Your task to perform on an android device: Clear the shopping cart on walmart. Search for "usb-a to usb-b" on walmart, select the first entry, and add it to the cart. Image 0: 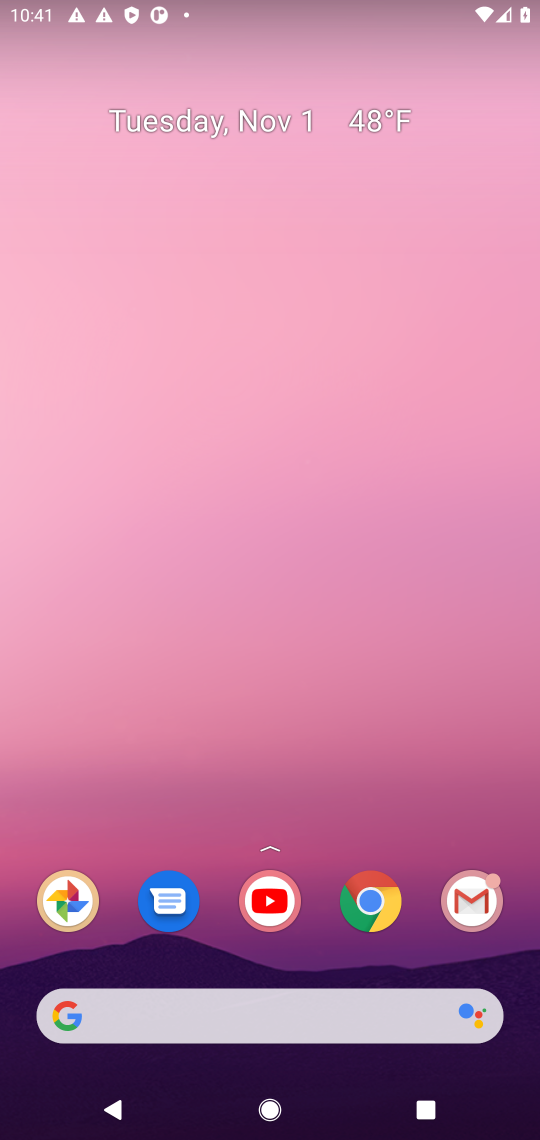
Step 0: drag from (325, 959) to (310, 196)
Your task to perform on an android device: Clear the shopping cart on walmart. Search for "usb-a to usb-b" on walmart, select the first entry, and add it to the cart. Image 1: 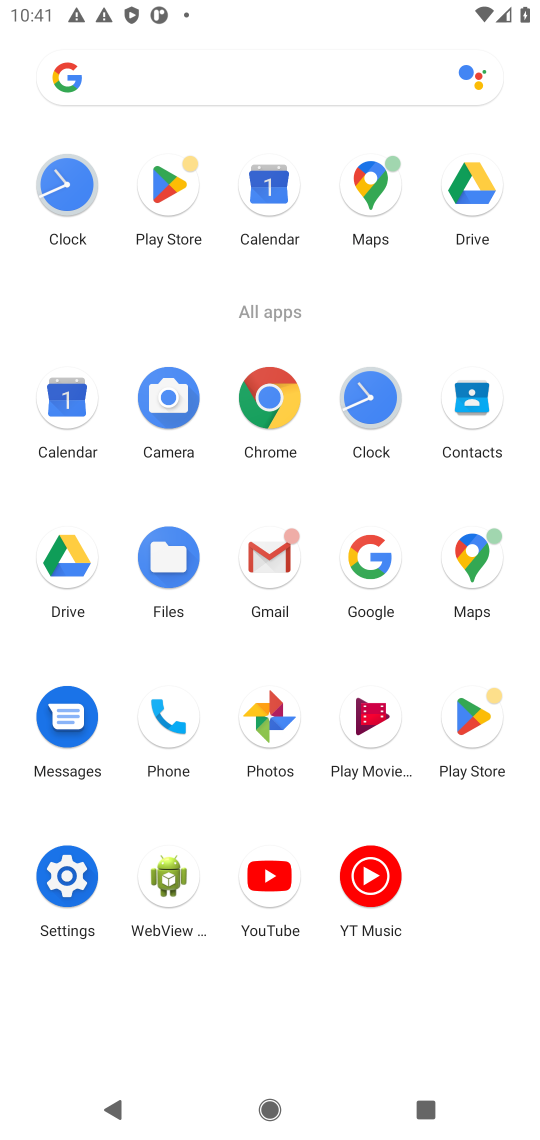
Step 1: click (273, 404)
Your task to perform on an android device: Clear the shopping cart on walmart. Search for "usb-a to usb-b" on walmart, select the first entry, and add it to the cart. Image 2: 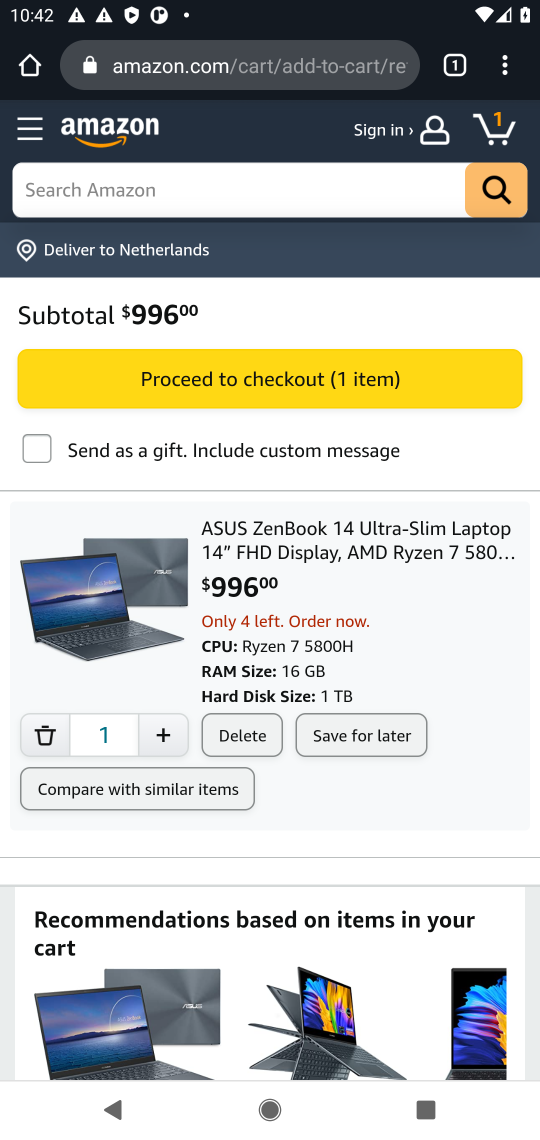
Step 2: click (312, 75)
Your task to perform on an android device: Clear the shopping cart on walmart. Search for "usb-a to usb-b" on walmart, select the first entry, and add it to the cart. Image 3: 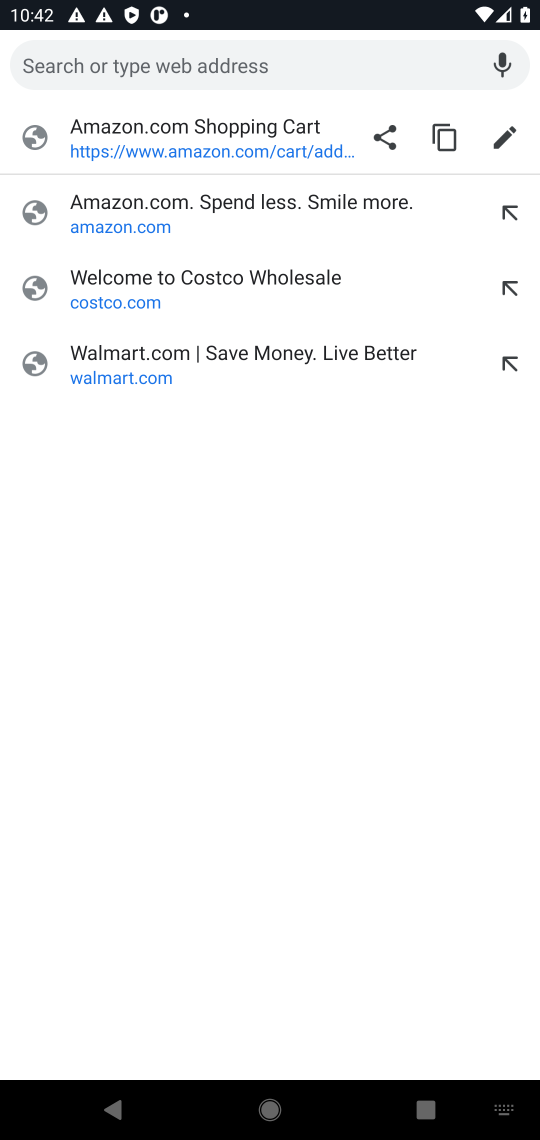
Step 3: type "walmart.com"
Your task to perform on an android device: Clear the shopping cart on walmart. Search for "usb-a to usb-b" on walmart, select the first entry, and add it to the cart. Image 4: 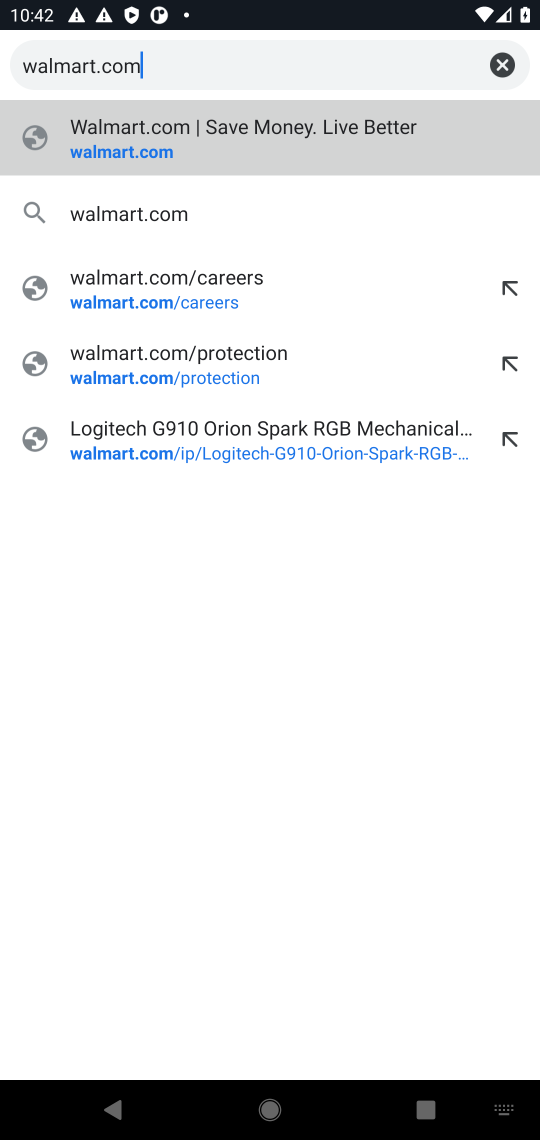
Step 4: press enter
Your task to perform on an android device: Clear the shopping cart on walmart. Search for "usb-a to usb-b" on walmart, select the first entry, and add it to the cart. Image 5: 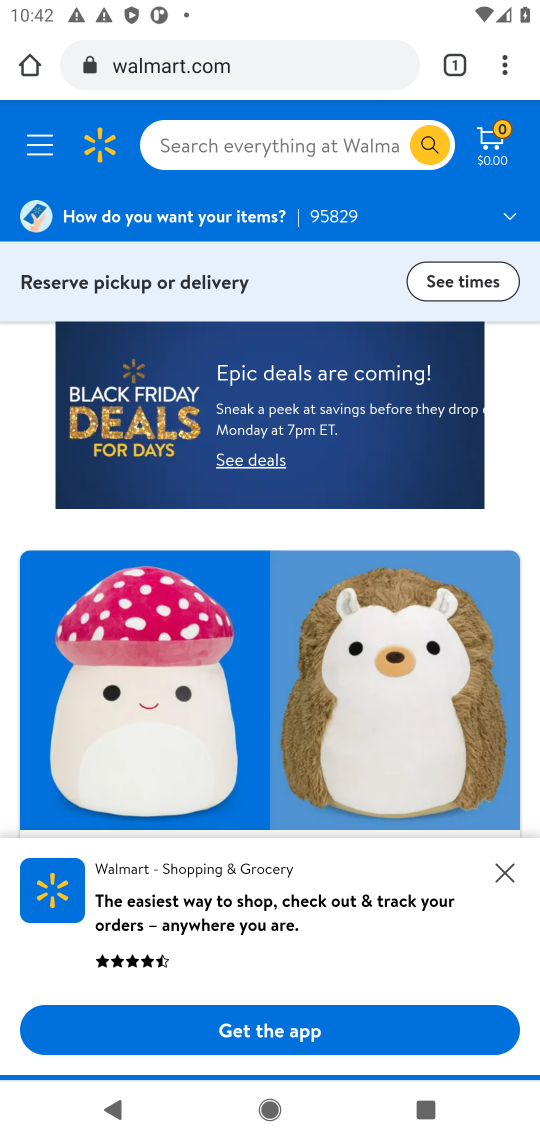
Step 5: click (485, 135)
Your task to perform on an android device: Clear the shopping cart on walmart. Search for "usb-a to usb-b" on walmart, select the first entry, and add it to the cart. Image 6: 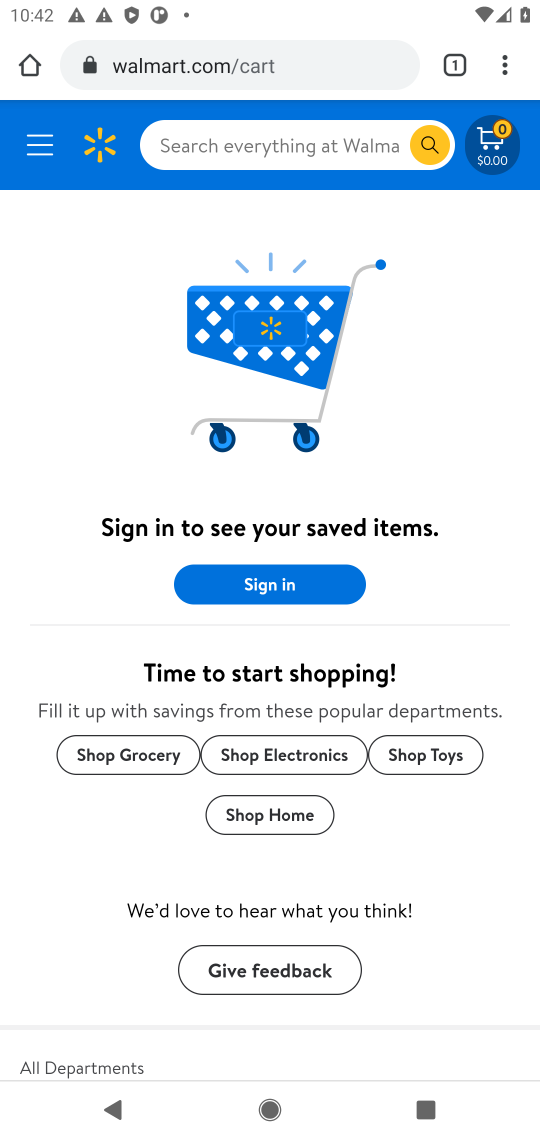
Step 6: click (336, 143)
Your task to perform on an android device: Clear the shopping cart on walmart. Search for "usb-a to usb-b" on walmart, select the first entry, and add it to the cart. Image 7: 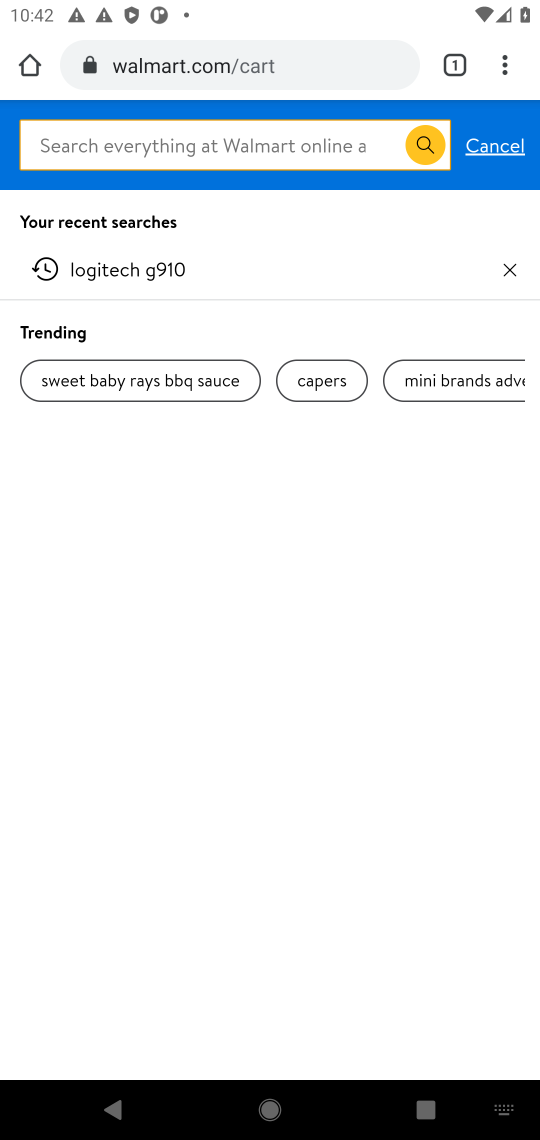
Step 7: type "usb-a to usb-b"
Your task to perform on an android device: Clear the shopping cart on walmart. Search for "usb-a to usb-b" on walmart, select the first entry, and add it to the cart. Image 8: 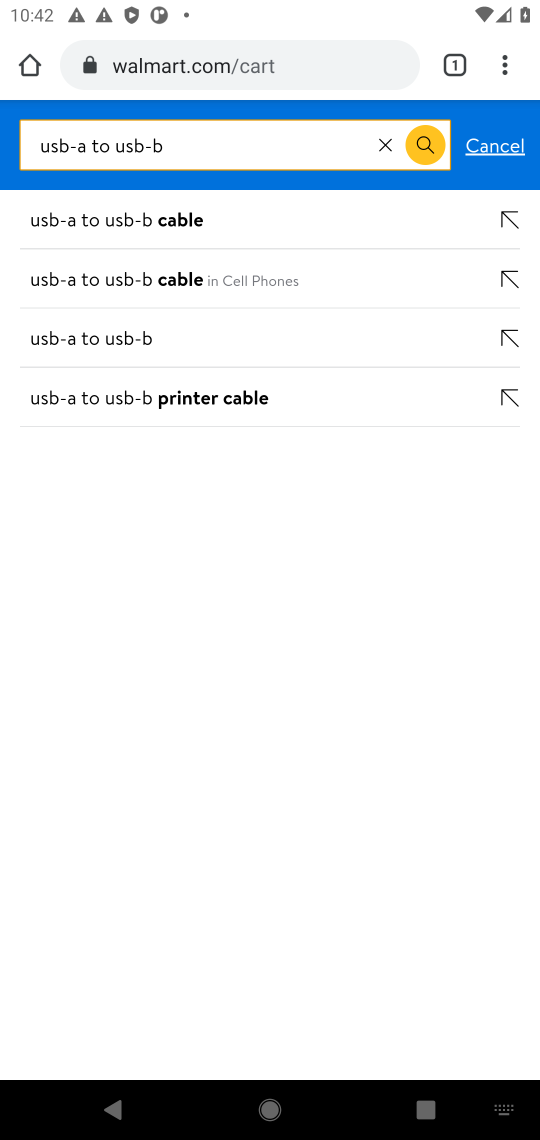
Step 8: press enter
Your task to perform on an android device: Clear the shopping cart on walmart. Search for "usb-a to usb-b" on walmart, select the first entry, and add it to the cart. Image 9: 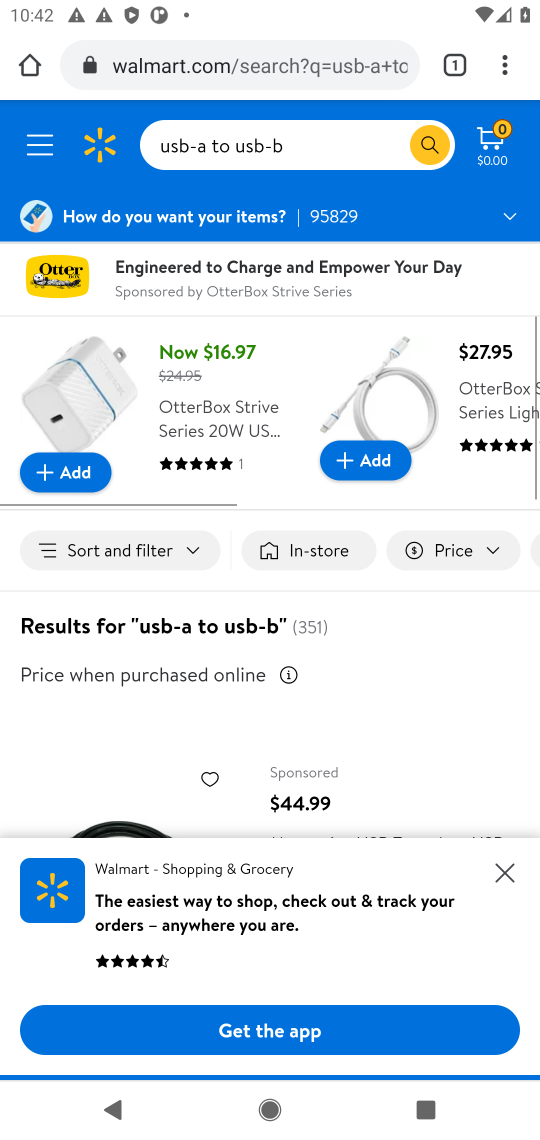
Step 9: drag from (295, 753) to (291, 55)
Your task to perform on an android device: Clear the shopping cart on walmart. Search for "usb-a to usb-b" on walmart, select the first entry, and add it to the cart. Image 10: 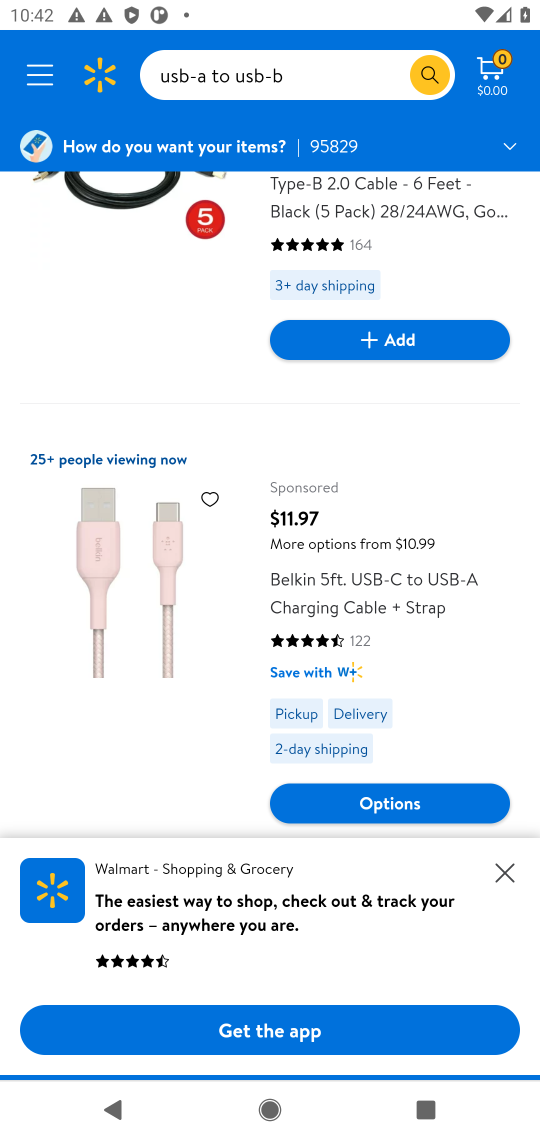
Step 10: drag from (350, 712) to (314, 264)
Your task to perform on an android device: Clear the shopping cart on walmart. Search for "usb-a to usb-b" on walmart, select the first entry, and add it to the cart. Image 11: 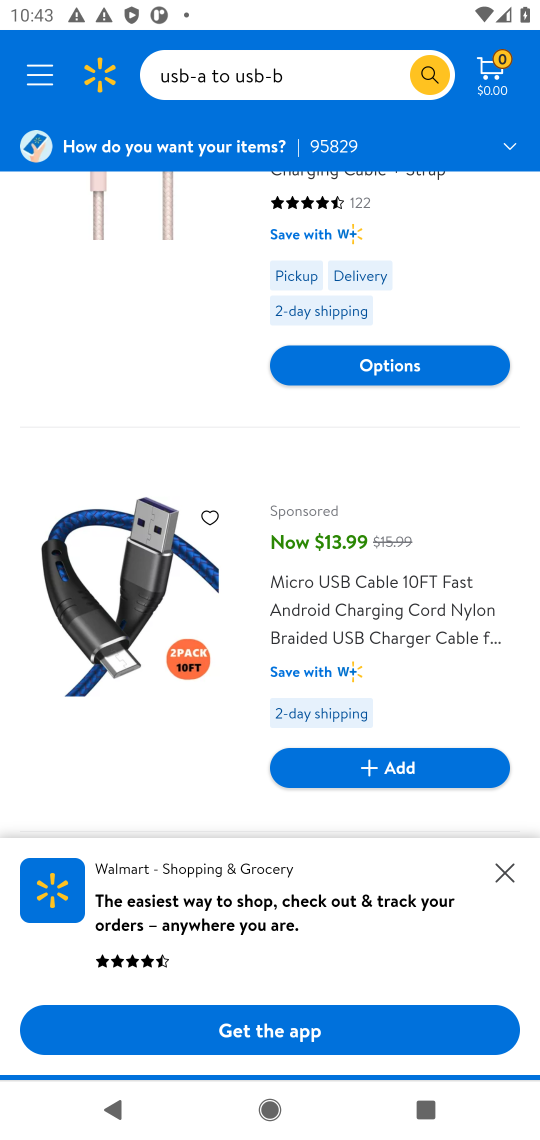
Step 11: drag from (285, 781) to (354, 358)
Your task to perform on an android device: Clear the shopping cart on walmart. Search for "usb-a to usb-b" on walmart, select the first entry, and add it to the cart. Image 12: 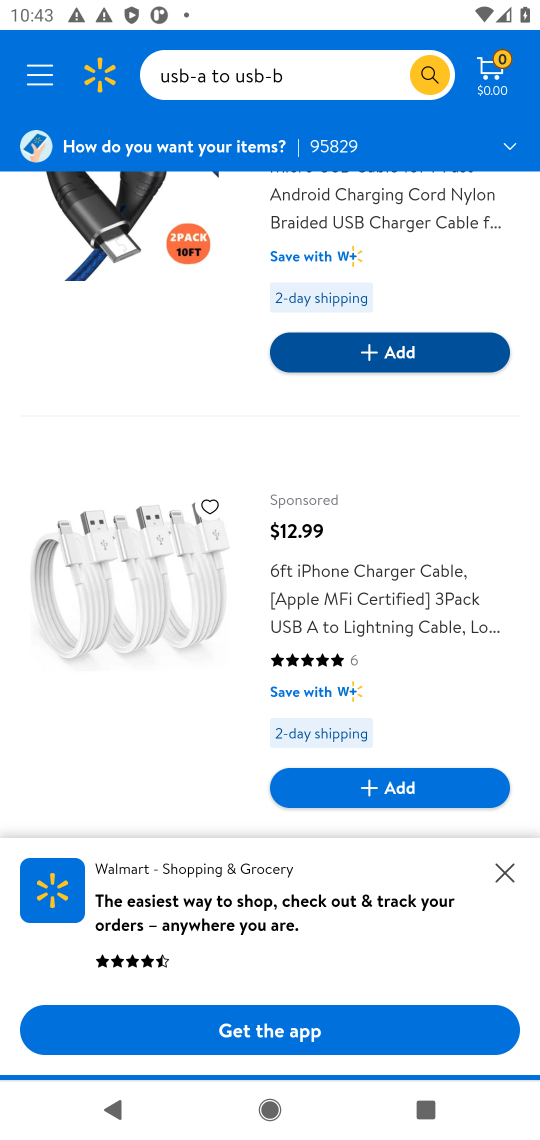
Step 12: drag from (253, 741) to (389, 326)
Your task to perform on an android device: Clear the shopping cart on walmart. Search for "usb-a to usb-b" on walmart, select the first entry, and add it to the cart. Image 13: 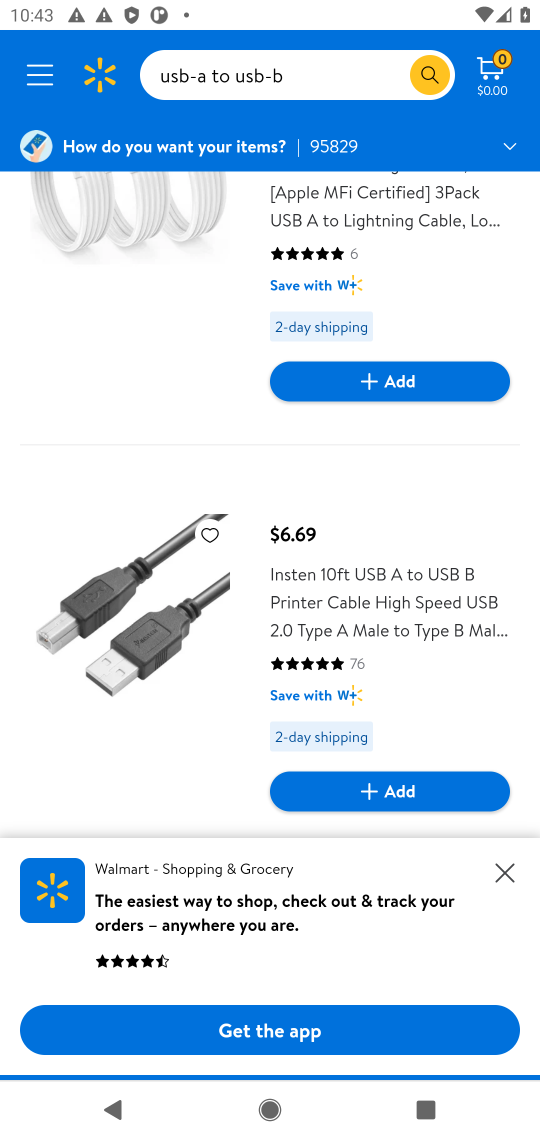
Step 13: drag from (438, 460) to (394, 756)
Your task to perform on an android device: Clear the shopping cart on walmart. Search for "usb-a to usb-b" on walmart, select the first entry, and add it to the cart. Image 14: 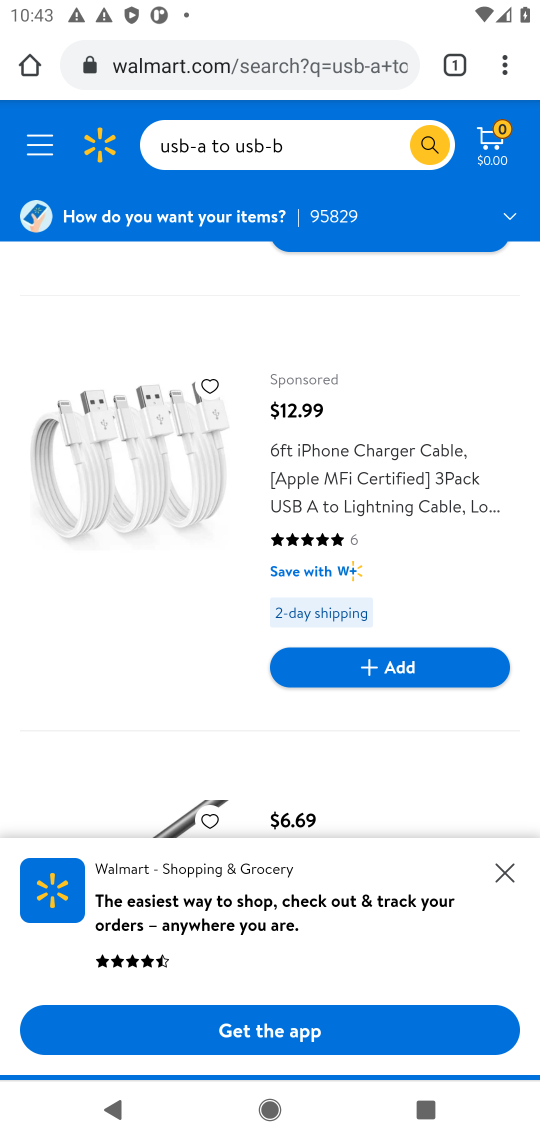
Step 14: drag from (226, 686) to (308, 279)
Your task to perform on an android device: Clear the shopping cart on walmart. Search for "usb-a to usb-b" on walmart, select the first entry, and add it to the cart. Image 15: 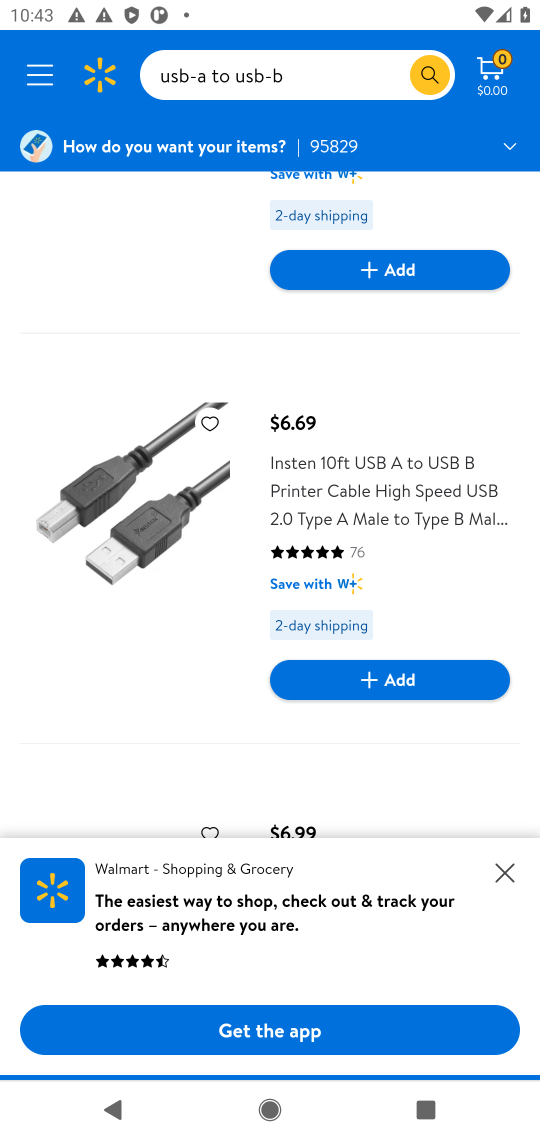
Step 15: click (384, 499)
Your task to perform on an android device: Clear the shopping cart on walmart. Search for "usb-a to usb-b" on walmart, select the first entry, and add it to the cart. Image 16: 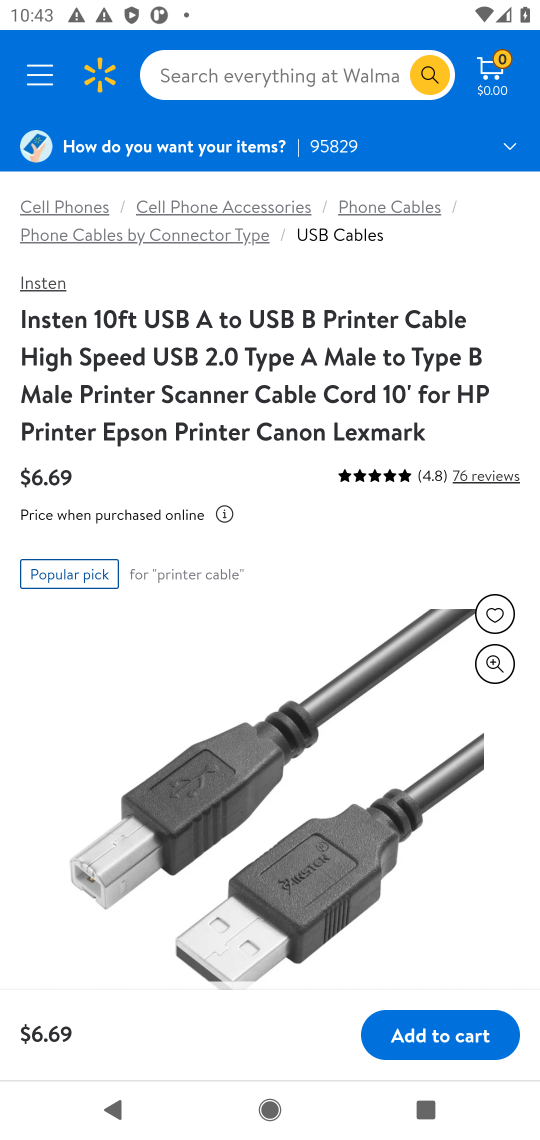
Step 16: drag from (311, 814) to (327, 309)
Your task to perform on an android device: Clear the shopping cart on walmart. Search for "usb-a to usb-b" on walmart, select the first entry, and add it to the cart. Image 17: 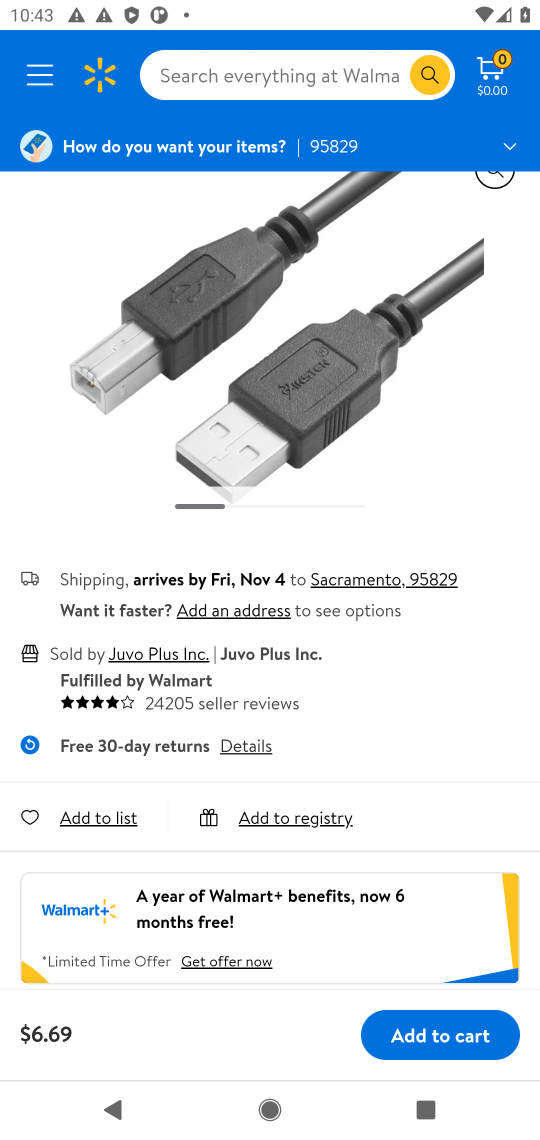
Step 17: drag from (357, 817) to (390, 285)
Your task to perform on an android device: Clear the shopping cart on walmart. Search for "usb-a to usb-b" on walmart, select the first entry, and add it to the cart. Image 18: 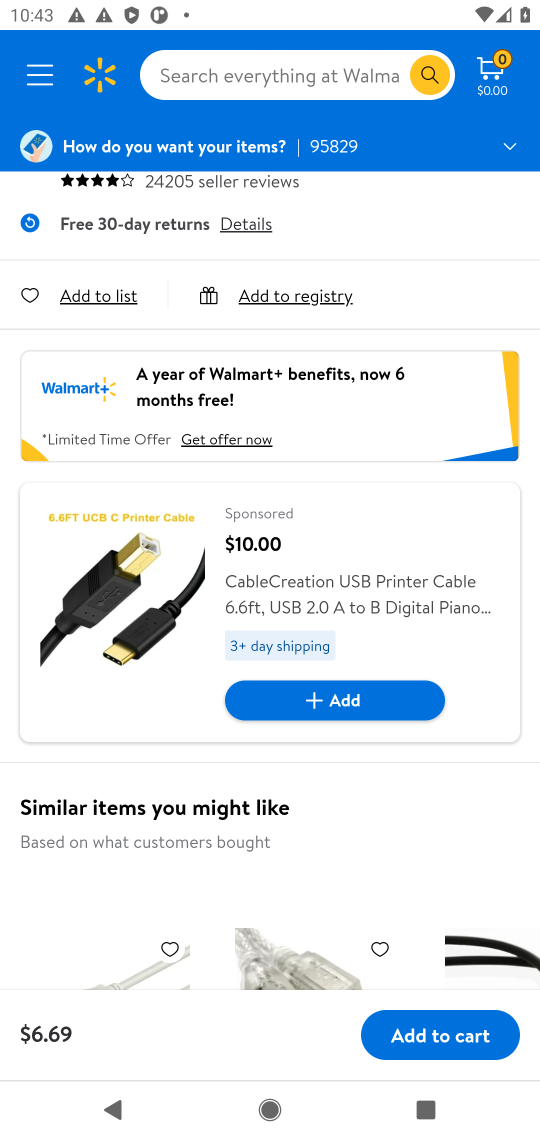
Step 18: drag from (290, 895) to (376, 302)
Your task to perform on an android device: Clear the shopping cart on walmart. Search for "usb-a to usb-b" on walmart, select the first entry, and add it to the cart. Image 19: 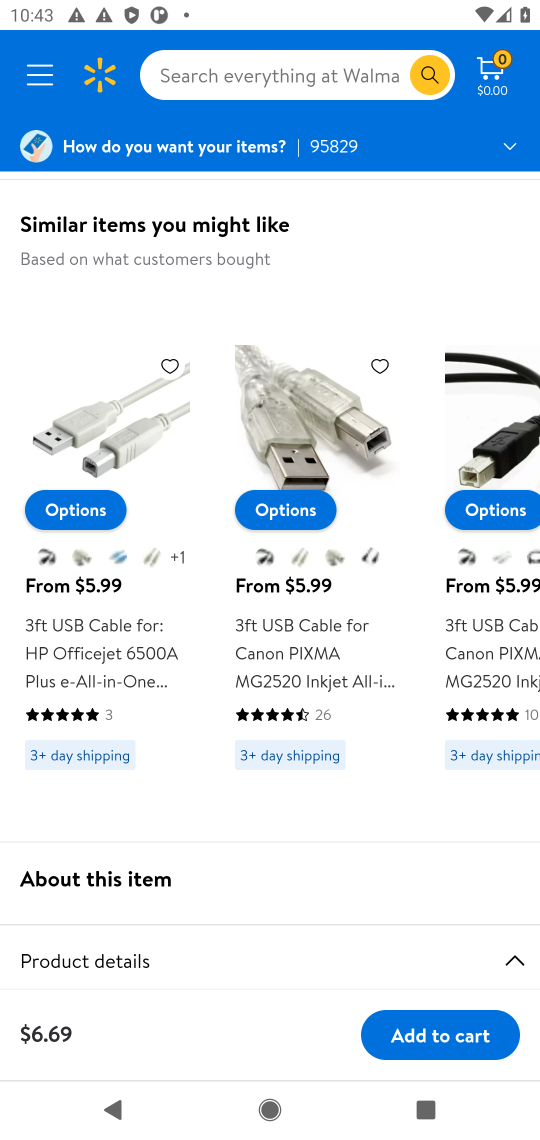
Step 19: click (433, 1037)
Your task to perform on an android device: Clear the shopping cart on walmart. Search for "usb-a to usb-b" on walmart, select the first entry, and add it to the cart. Image 20: 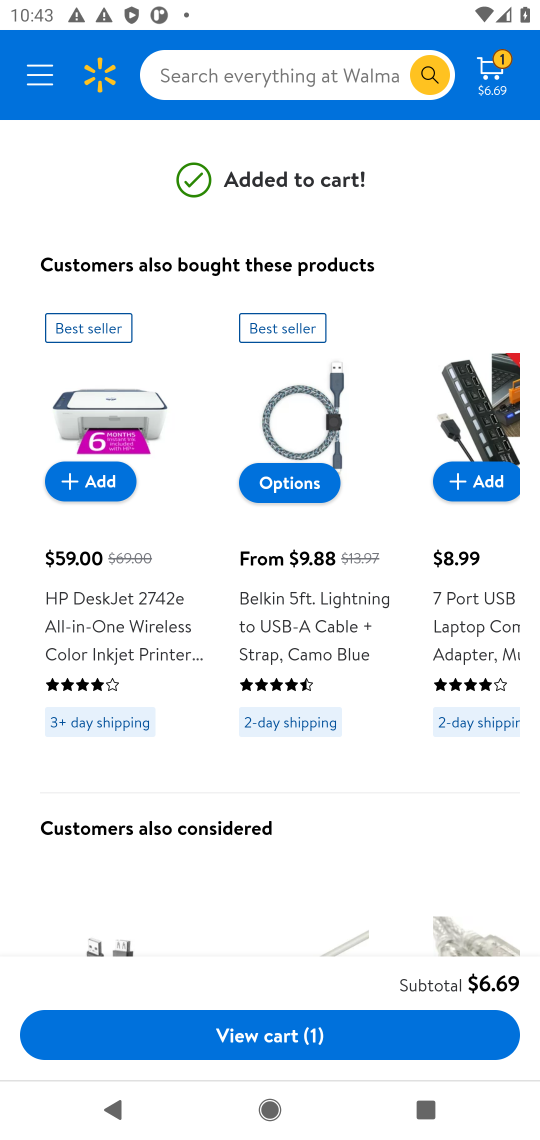
Step 20: task complete